Your task to perform on an android device: Go to internet settings Image 0: 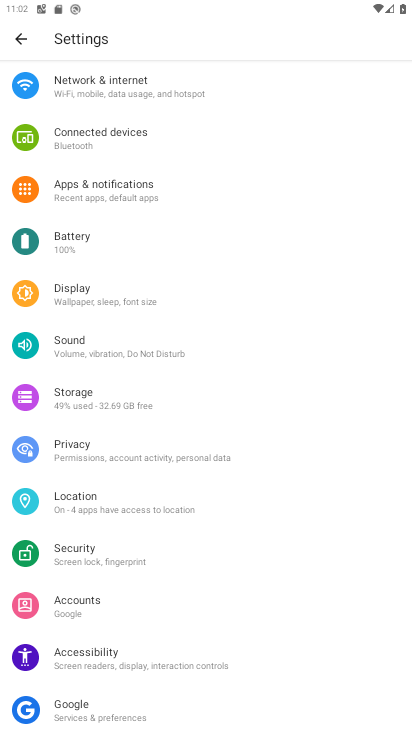
Step 0: click (114, 89)
Your task to perform on an android device: Go to internet settings Image 1: 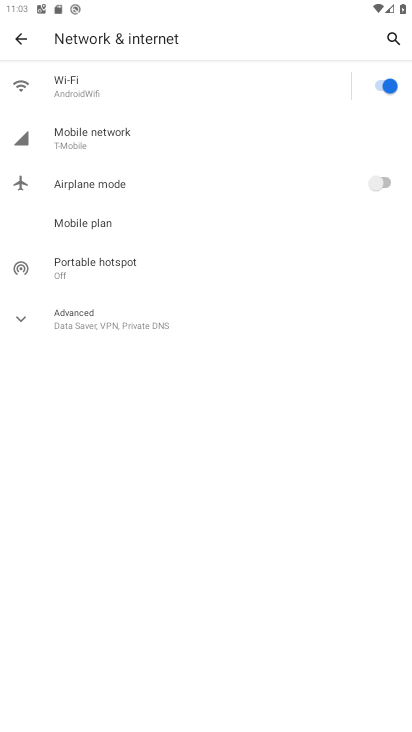
Step 1: click (132, 128)
Your task to perform on an android device: Go to internet settings Image 2: 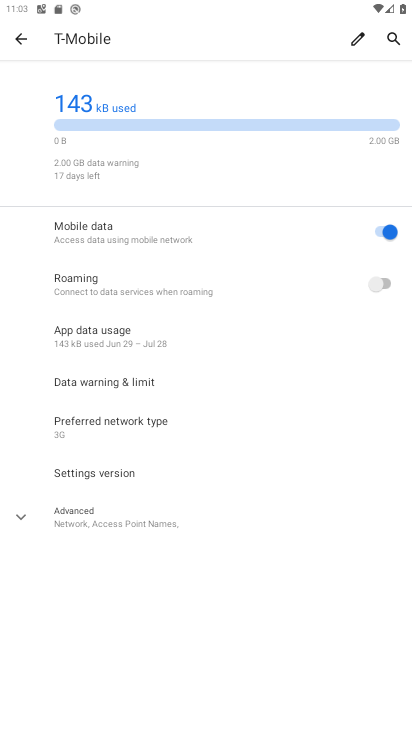
Step 2: task complete